Your task to perform on an android device: see tabs open on other devices in the chrome app Image 0: 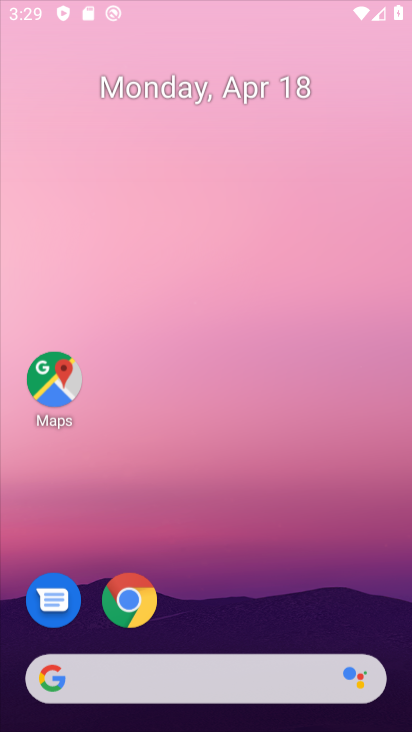
Step 0: click (147, 598)
Your task to perform on an android device: see tabs open on other devices in the chrome app Image 1: 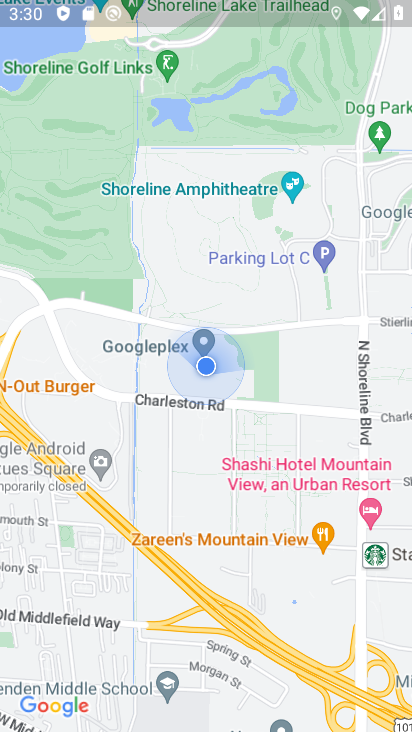
Step 1: press back button
Your task to perform on an android device: see tabs open on other devices in the chrome app Image 2: 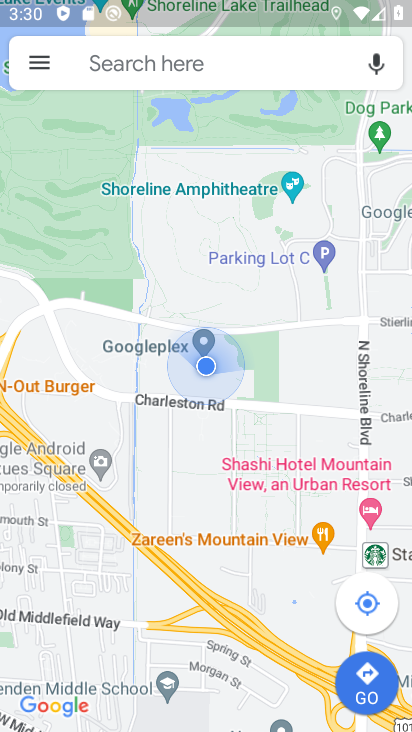
Step 2: press back button
Your task to perform on an android device: see tabs open on other devices in the chrome app Image 3: 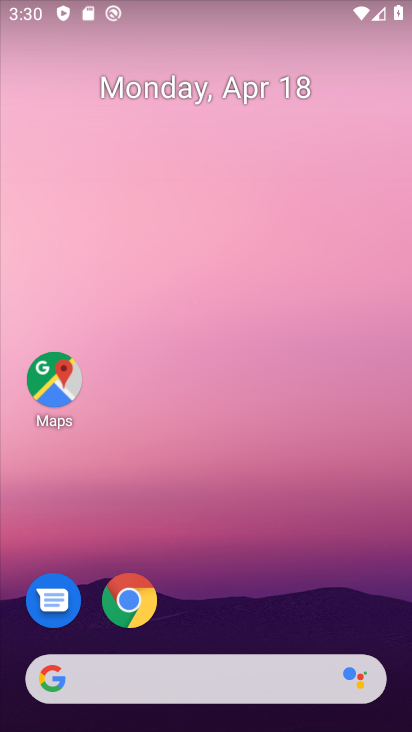
Step 3: click (108, 595)
Your task to perform on an android device: see tabs open on other devices in the chrome app Image 4: 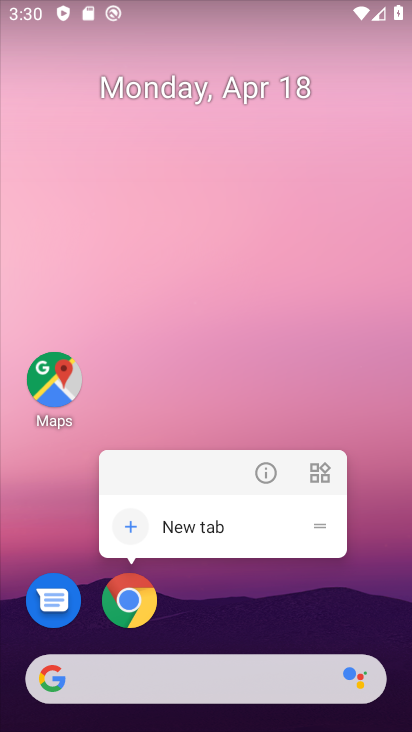
Step 4: click (124, 597)
Your task to perform on an android device: see tabs open on other devices in the chrome app Image 5: 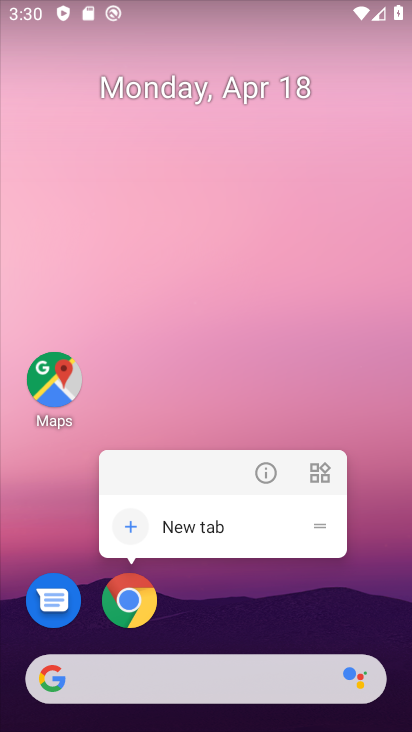
Step 5: click (124, 597)
Your task to perform on an android device: see tabs open on other devices in the chrome app Image 6: 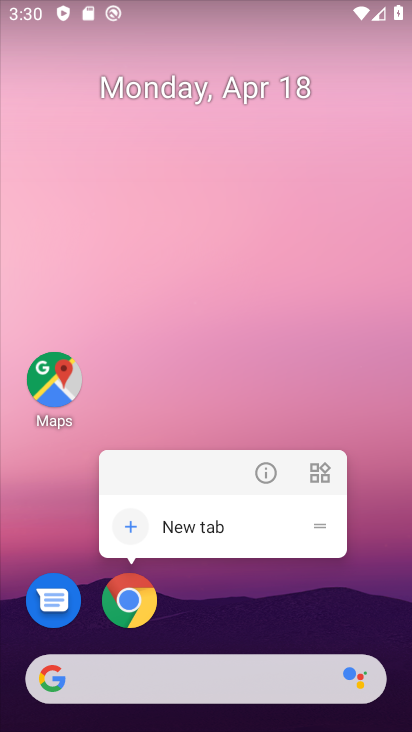
Step 6: click (124, 603)
Your task to perform on an android device: see tabs open on other devices in the chrome app Image 7: 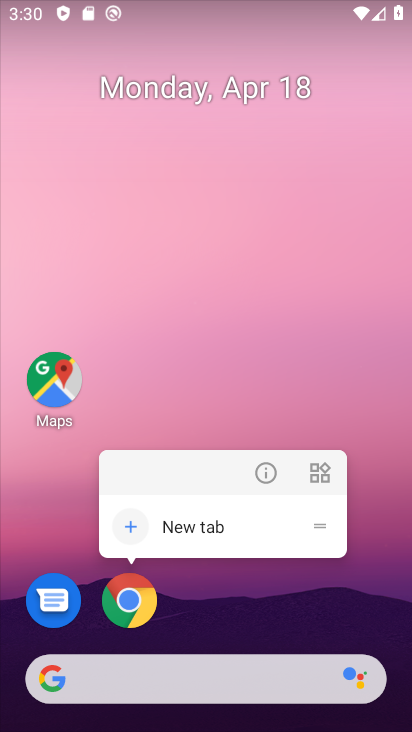
Step 7: click (139, 593)
Your task to perform on an android device: see tabs open on other devices in the chrome app Image 8: 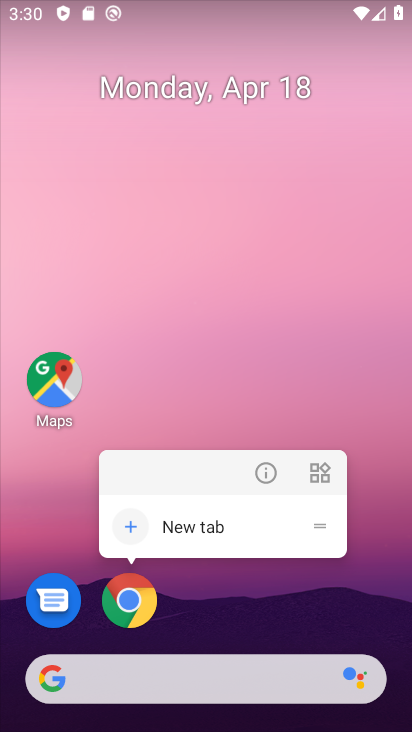
Step 8: click (124, 601)
Your task to perform on an android device: see tabs open on other devices in the chrome app Image 9: 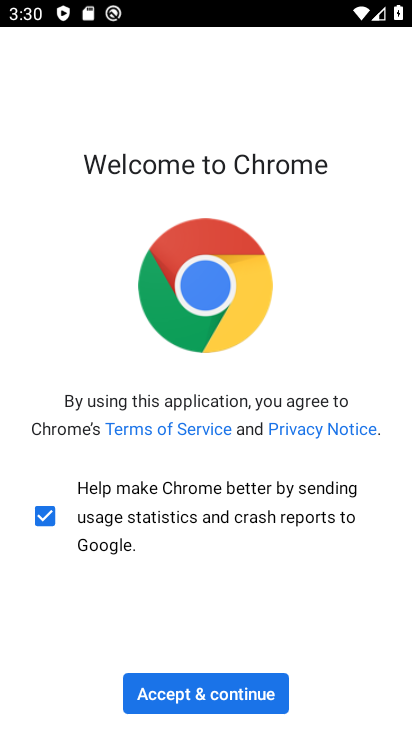
Step 9: click (204, 684)
Your task to perform on an android device: see tabs open on other devices in the chrome app Image 10: 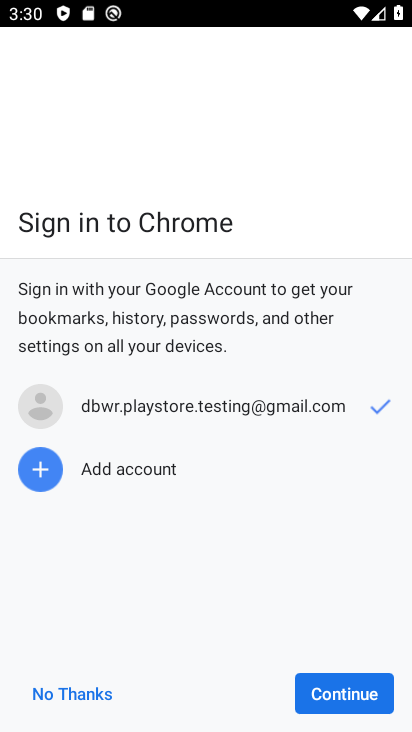
Step 10: click (345, 686)
Your task to perform on an android device: see tabs open on other devices in the chrome app Image 11: 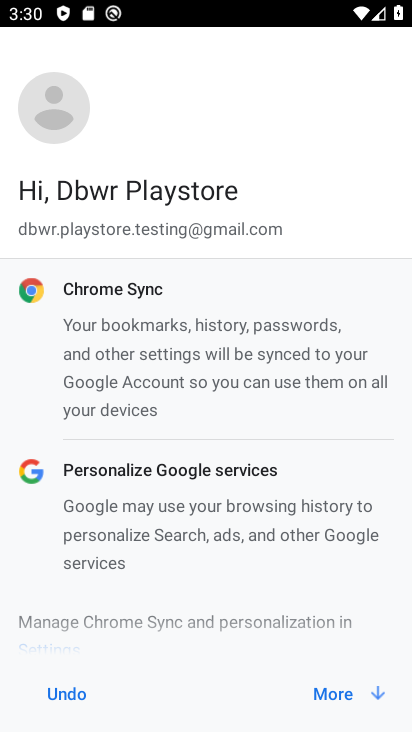
Step 11: click (379, 697)
Your task to perform on an android device: see tabs open on other devices in the chrome app Image 12: 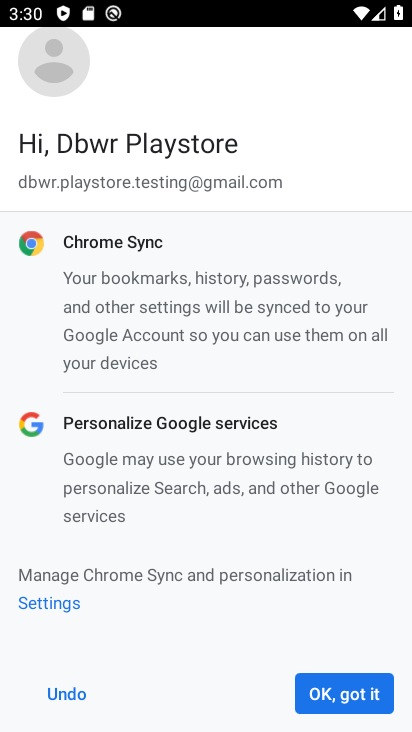
Step 12: click (366, 689)
Your task to perform on an android device: see tabs open on other devices in the chrome app Image 13: 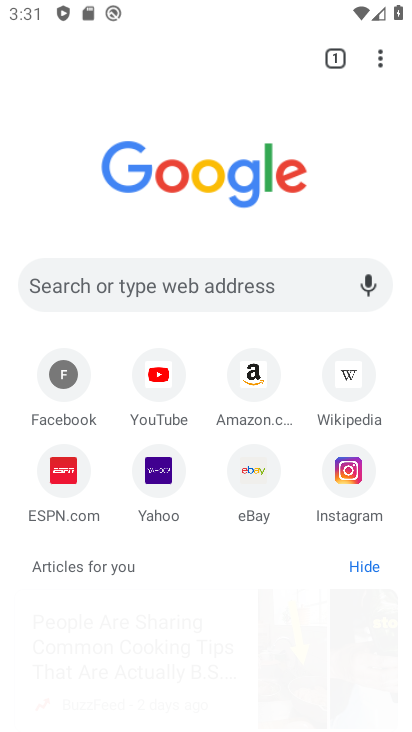
Step 13: click (380, 68)
Your task to perform on an android device: see tabs open on other devices in the chrome app Image 14: 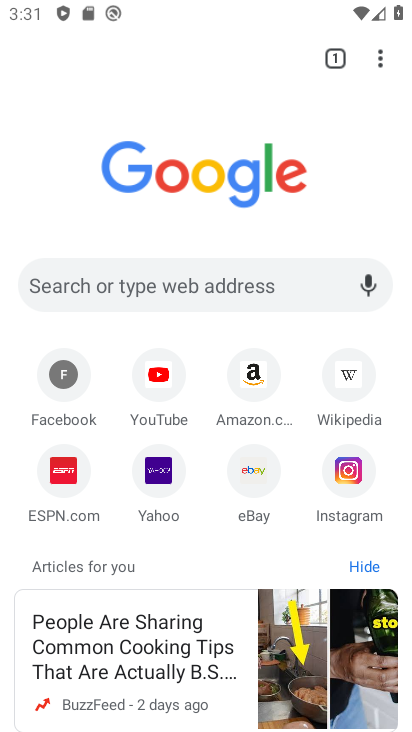
Step 14: click (379, 68)
Your task to perform on an android device: see tabs open on other devices in the chrome app Image 15: 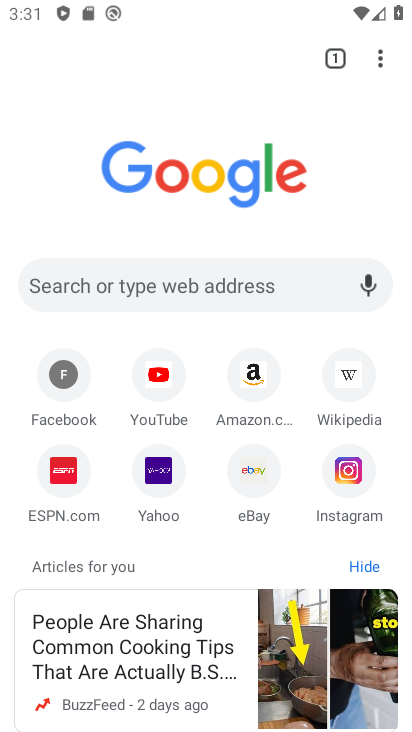
Step 15: click (386, 65)
Your task to perform on an android device: see tabs open on other devices in the chrome app Image 16: 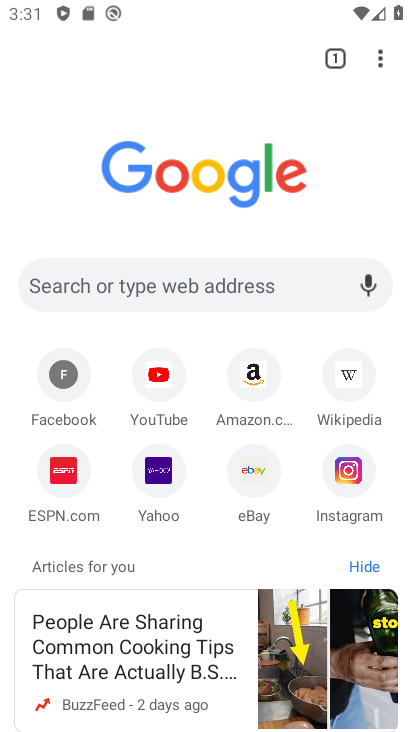
Step 16: click (382, 62)
Your task to perform on an android device: see tabs open on other devices in the chrome app Image 17: 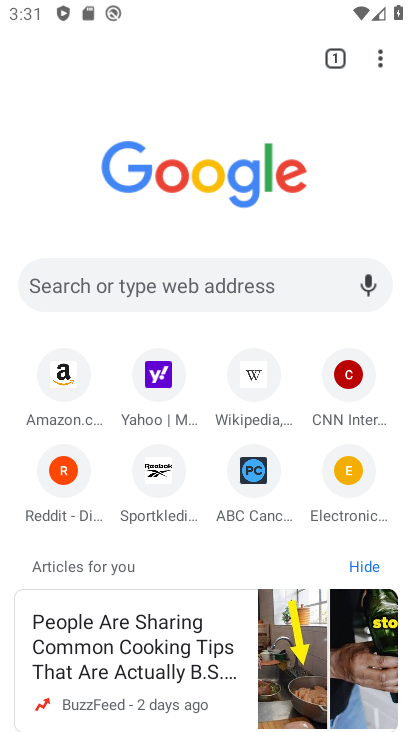
Step 17: click (382, 62)
Your task to perform on an android device: see tabs open on other devices in the chrome app Image 18: 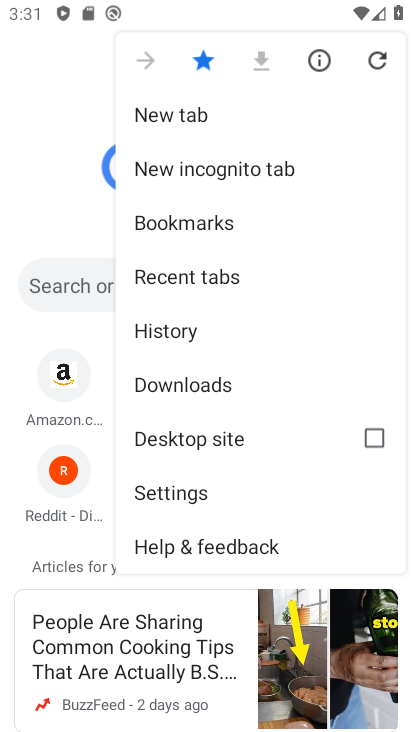
Step 18: click (219, 139)
Your task to perform on an android device: see tabs open on other devices in the chrome app Image 19: 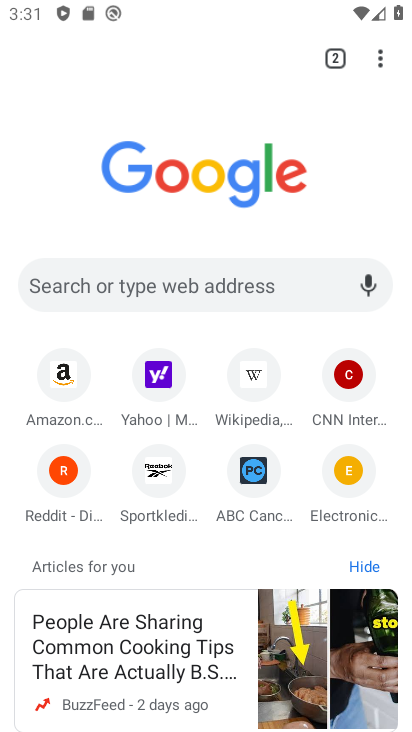
Step 19: task complete